Your task to perform on an android device: turn on bluetooth scan Image 0: 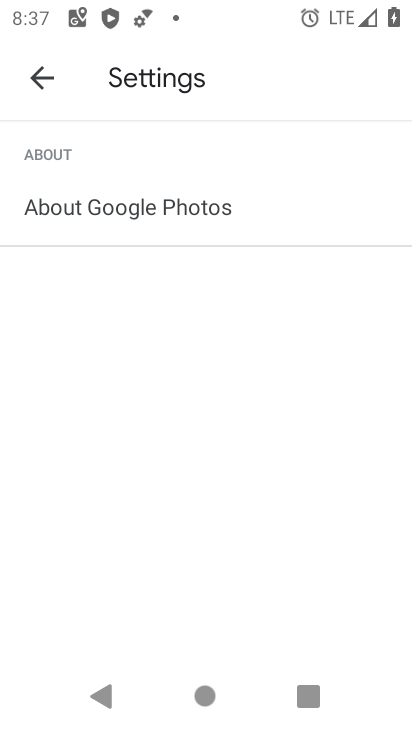
Step 0: press back button
Your task to perform on an android device: turn on bluetooth scan Image 1: 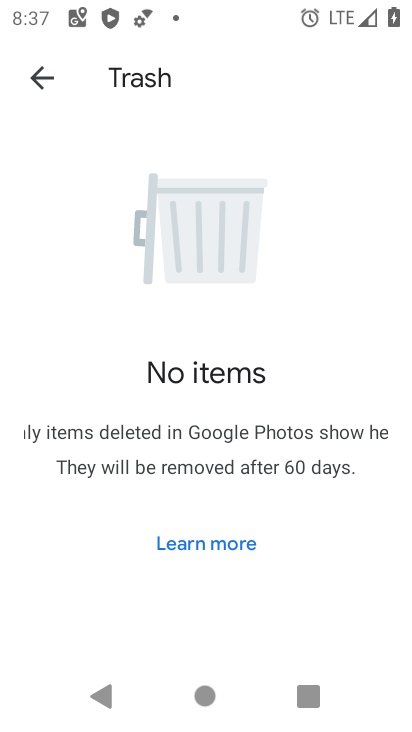
Step 1: press back button
Your task to perform on an android device: turn on bluetooth scan Image 2: 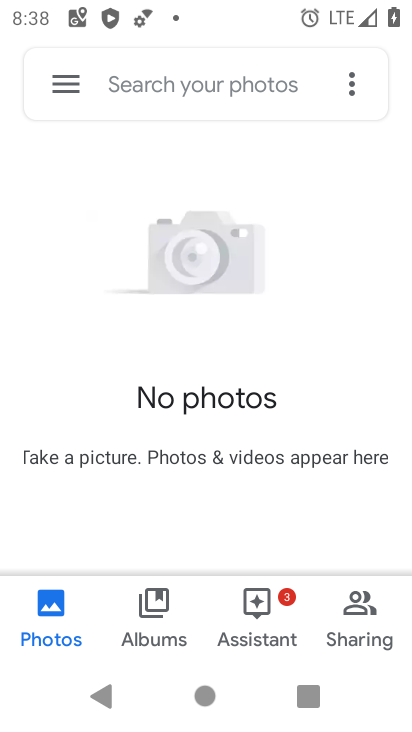
Step 2: press back button
Your task to perform on an android device: turn on bluetooth scan Image 3: 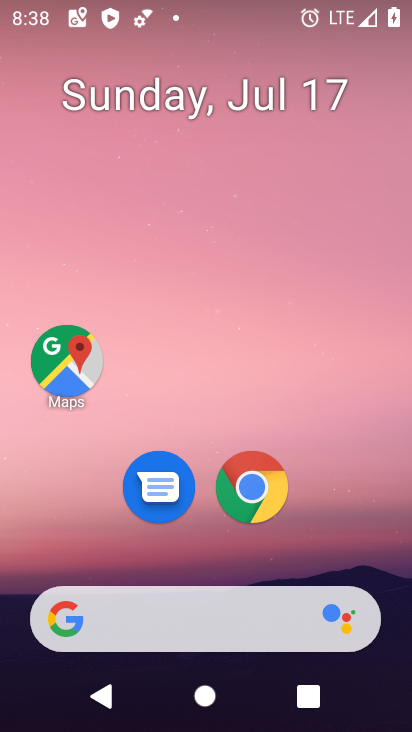
Step 3: drag from (205, 519) to (226, 11)
Your task to perform on an android device: turn on bluetooth scan Image 4: 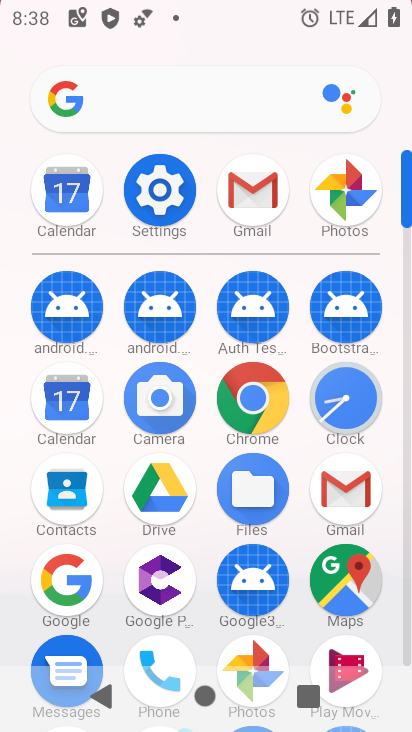
Step 4: click (180, 208)
Your task to perform on an android device: turn on bluetooth scan Image 5: 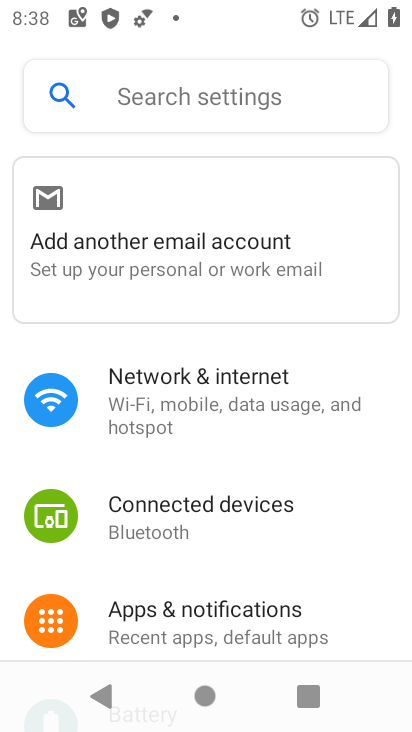
Step 5: click (172, 488)
Your task to perform on an android device: turn on bluetooth scan Image 6: 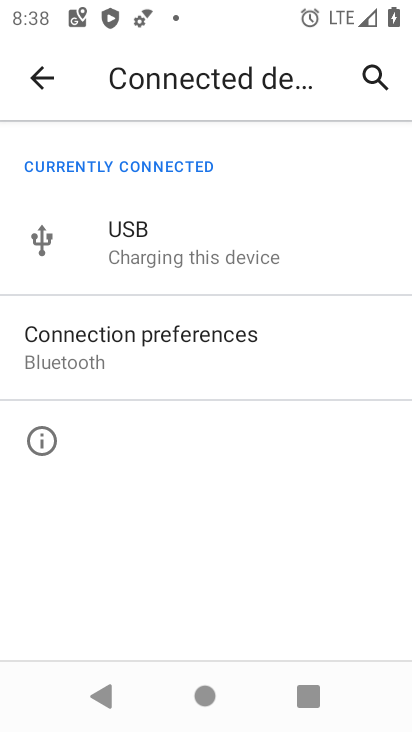
Step 6: click (80, 343)
Your task to perform on an android device: turn on bluetooth scan Image 7: 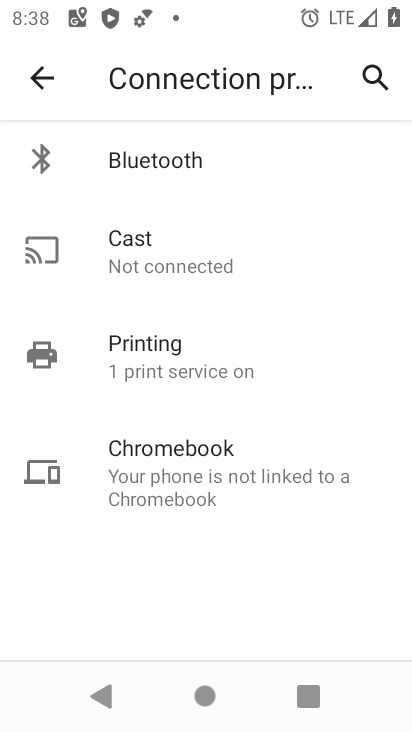
Step 7: click (181, 161)
Your task to perform on an android device: turn on bluetooth scan Image 8: 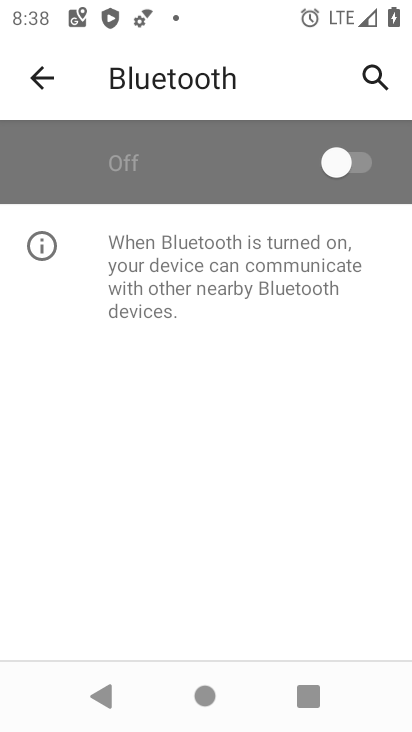
Step 8: click (359, 162)
Your task to perform on an android device: turn on bluetooth scan Image 9: 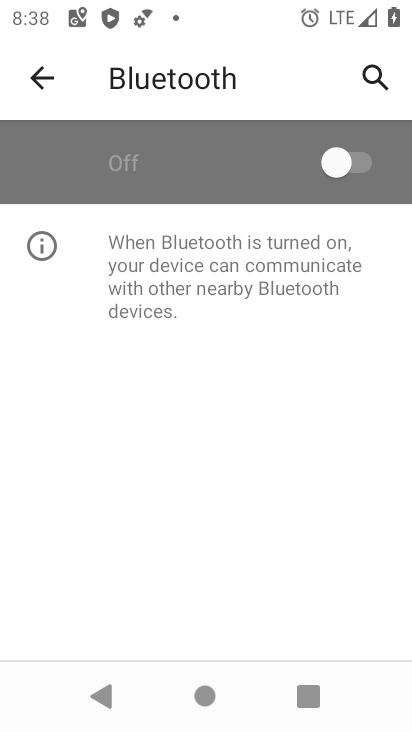
Step 9: task complete